Your task to perform on an android device: Open the map Image 0: 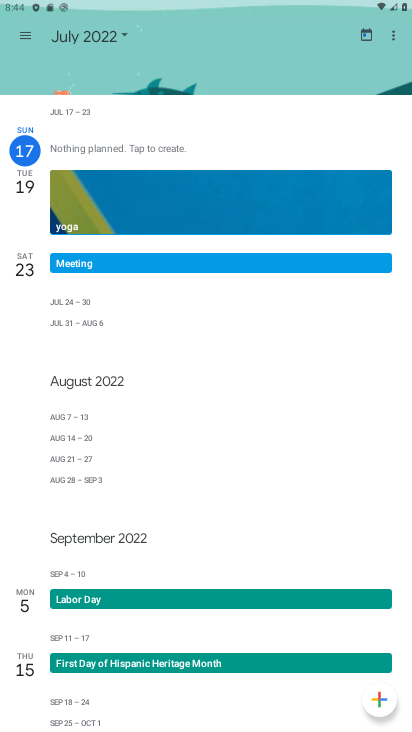
Step 0: press home button
Your task to perform on an android device: Open the map Image 1: 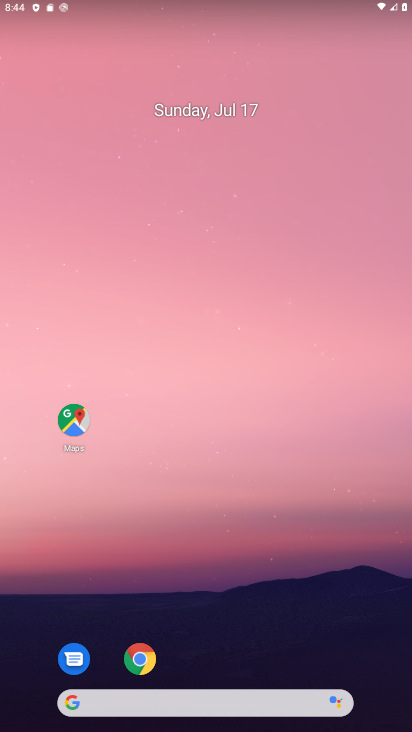
Step 1: click (75, 422)
Your task to perform on an android device: Open the map Image 2: 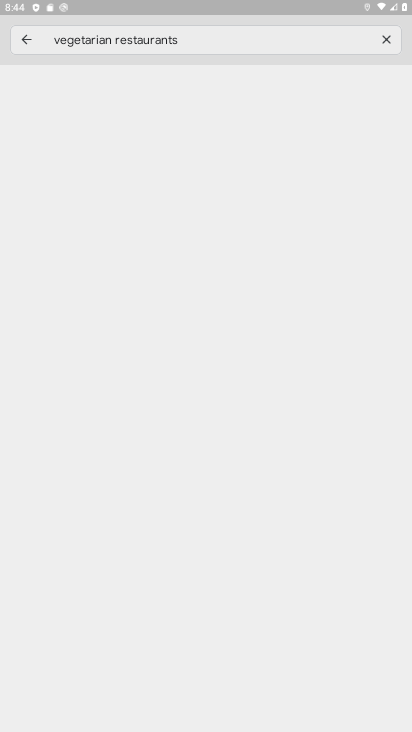
Step 2: task complete